Your task to perform on an android device: Open settings Image 0: 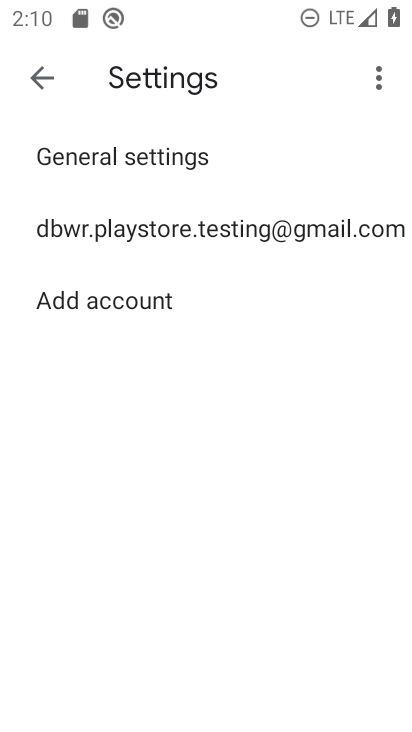
Step 0: press home button
Your task to perform on an android device: Open settings Image 1: 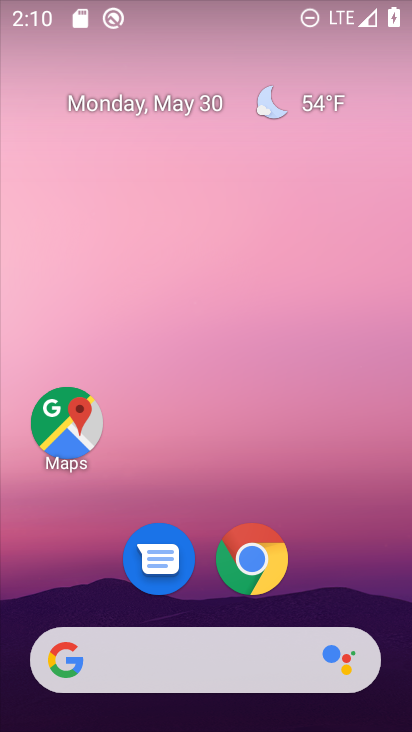
Step 1: drag from (326, 589) to (389, 18)
Your task to perform on an android device: Open settings Image 2: 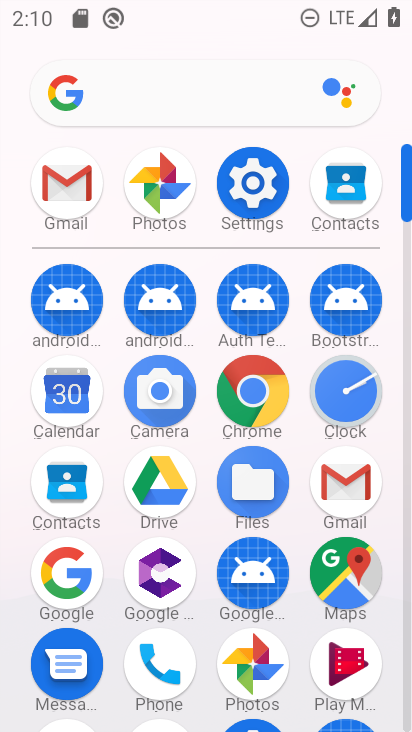
Step 2: click (251, 181)
Your task to perform on an android device: Open settings Image 3: 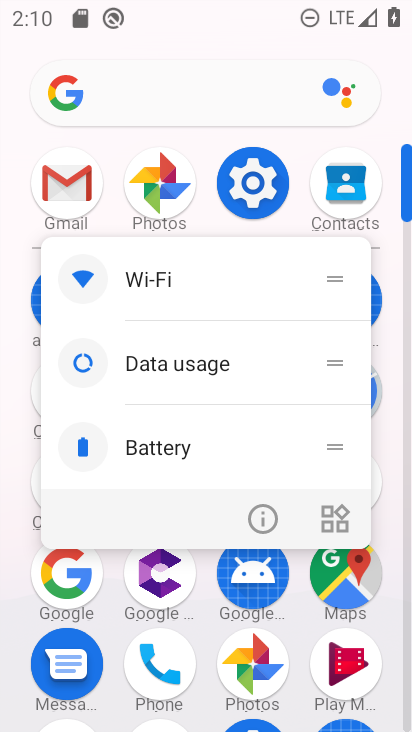
Step 3: click (270, 181)
Your task to perform on an android device: Open settings Image 4: 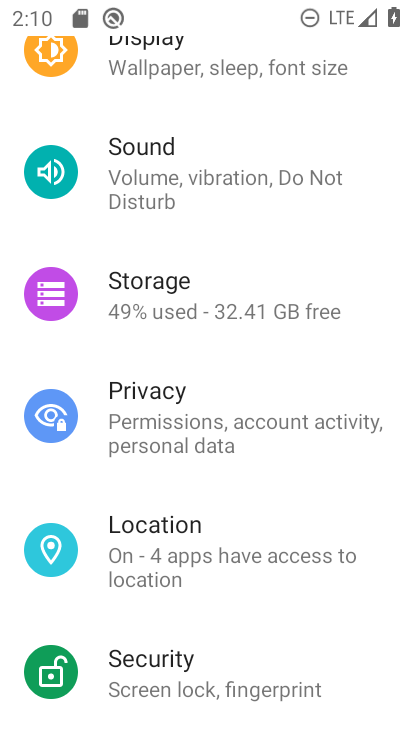
Step 4: task complete